Your task to perform on an android device: turn off location history Image 0: 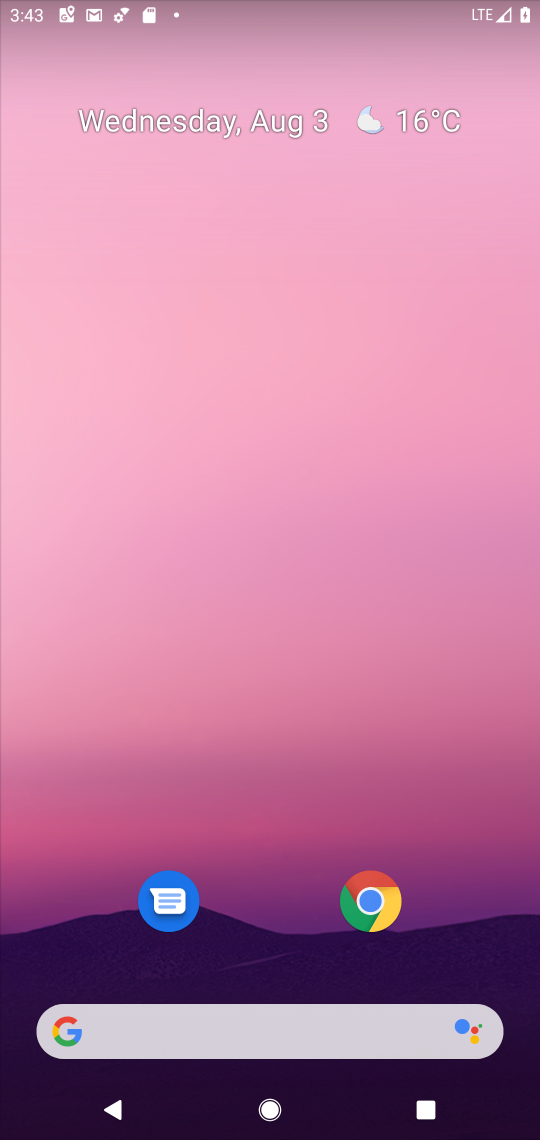
Step 0: drag from (296, 591) to (300, 236)
Your task to perform on an android device: turn off location history Image 1: 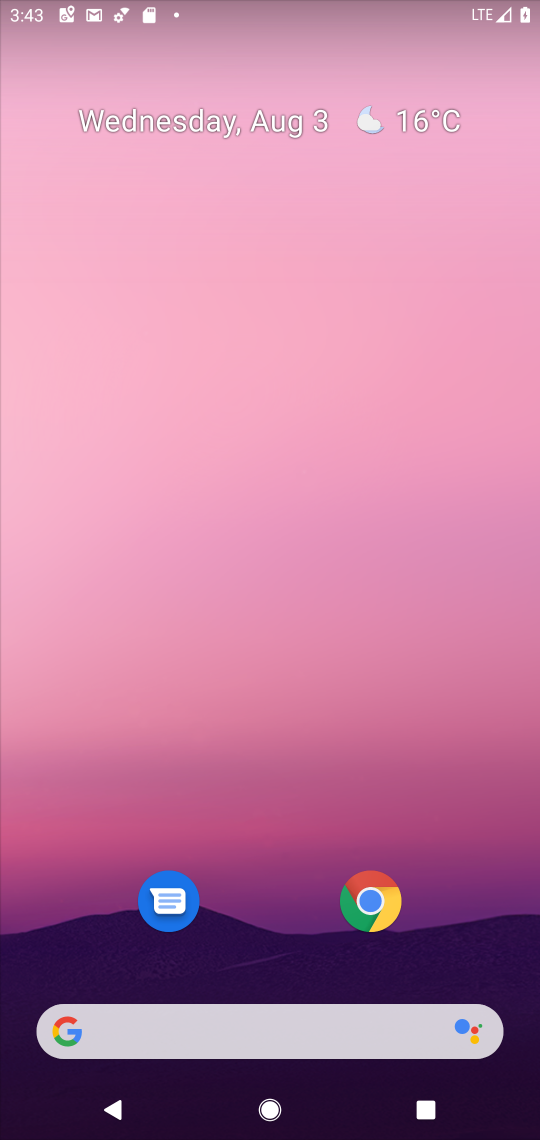
Step 1: drag from (296, 590) to (291, 244)
Your task to perform on an android device: turn off location history Image 2: 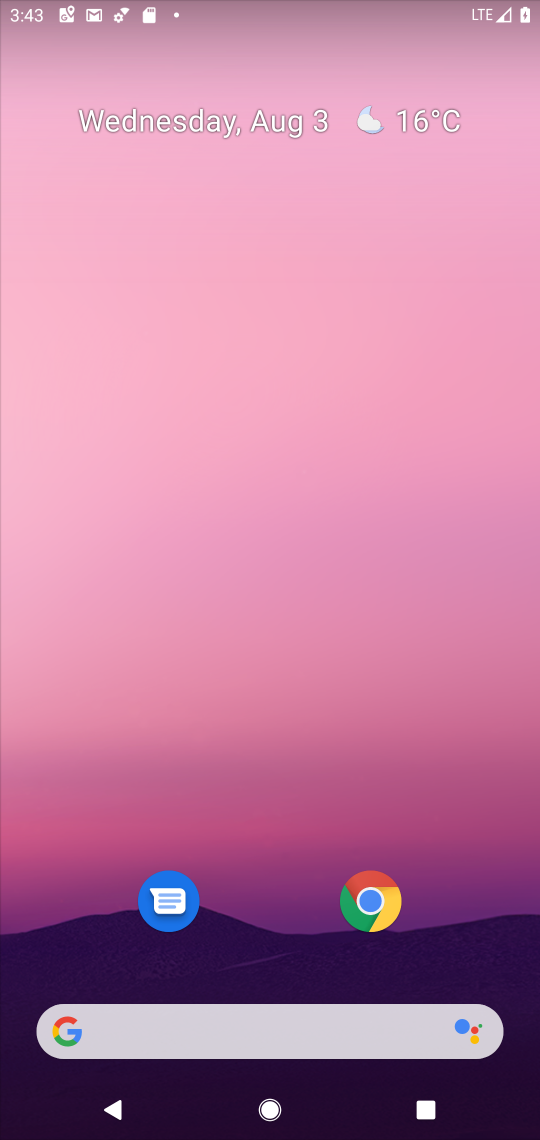
Step 2: drag from (247, 986) to (250, 100)
Your task to perform on an android device: turn off location history Image 3: 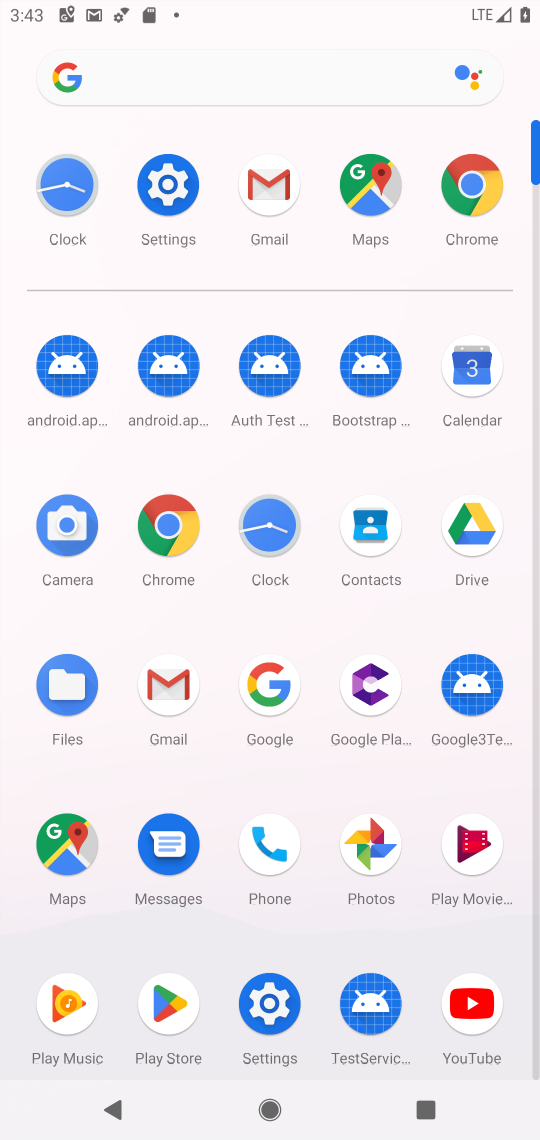
Step 3: click (181, 197)
Your task to perform on an android device: turn off location history Image 4: 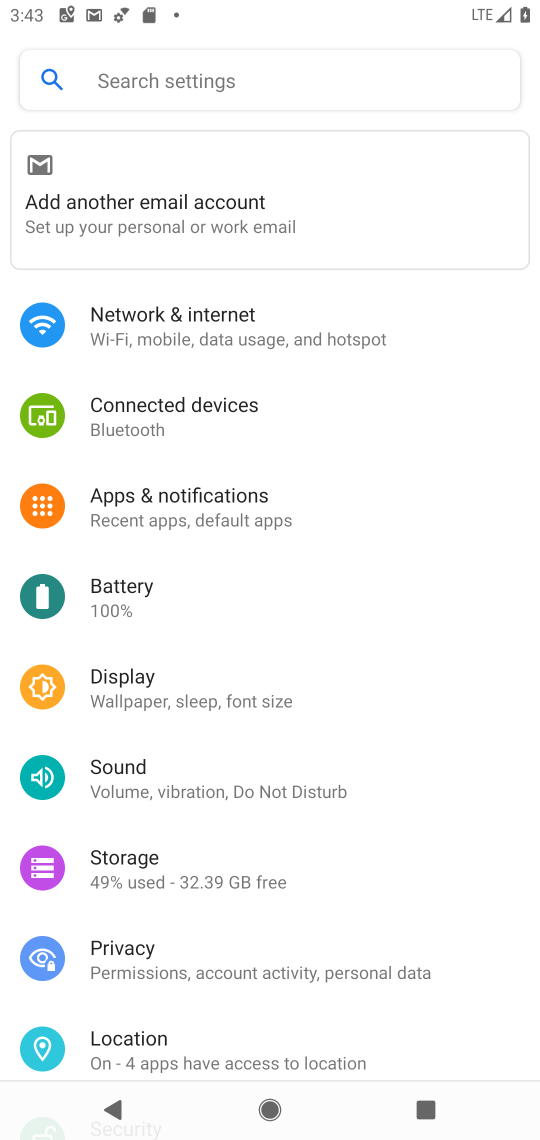
Step 4: click (199, 1049)
Your task to perform on an android device: turn off location history Image 5: 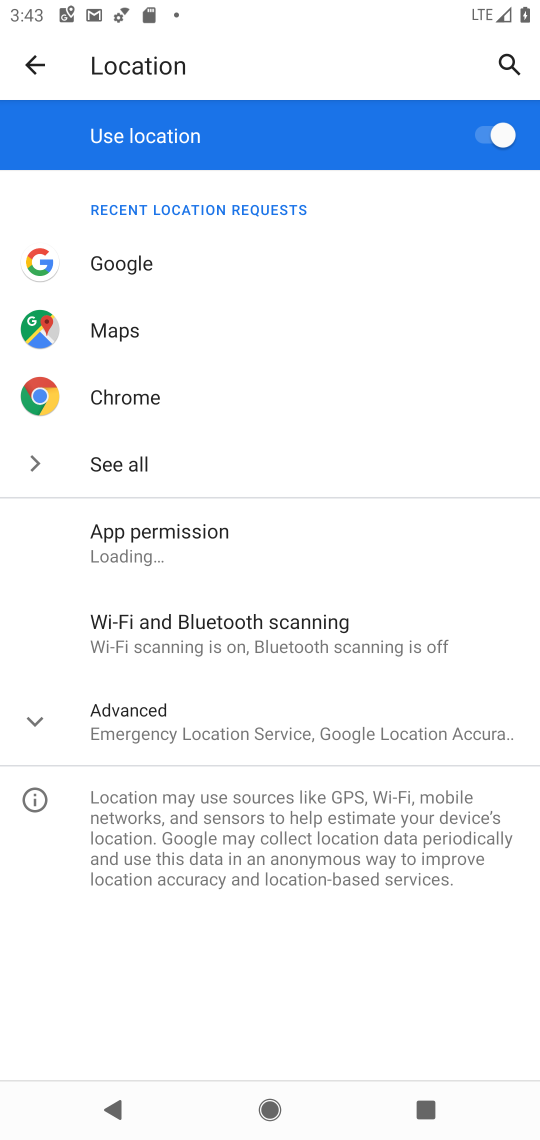
Step 5: click (240, 711)
Your task to perform on an android device: turn off location history Image 6: 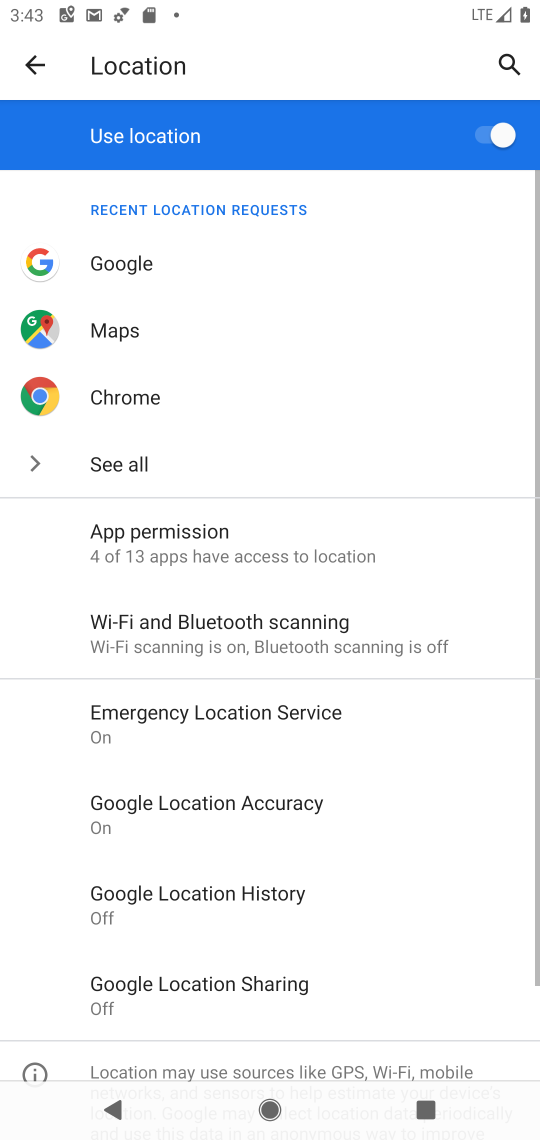
Step 6: click (263, 904)
Your task to perform on an android device: turn off location history Image 7: 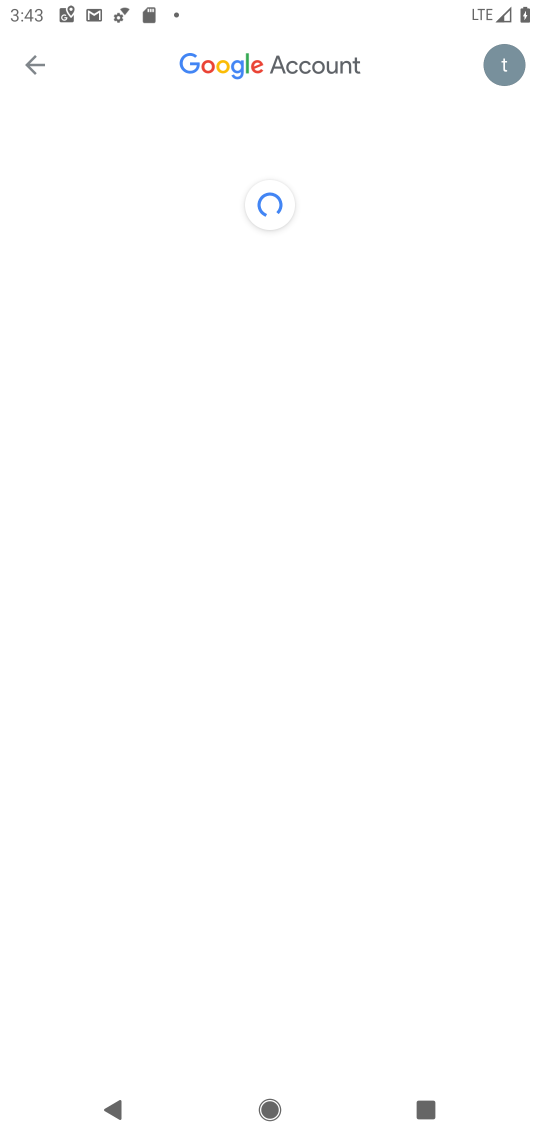
Step 7: task complete